Your task to perform on an android device: add a contact Image 0: 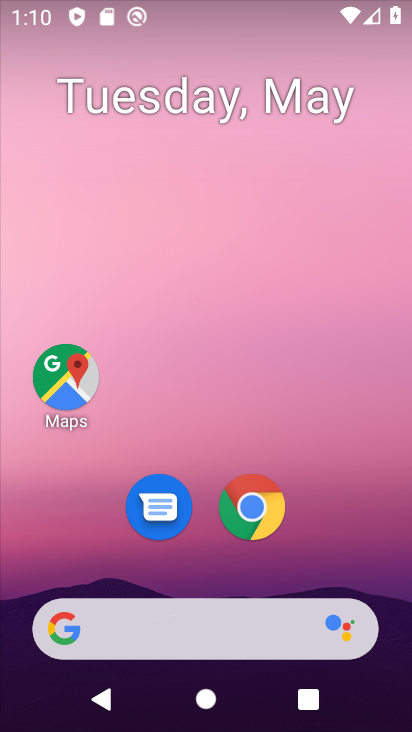
Step 0: drag from (396, 571) to (351, 183)
Your task to perform on an android device: add a contact Image 1: 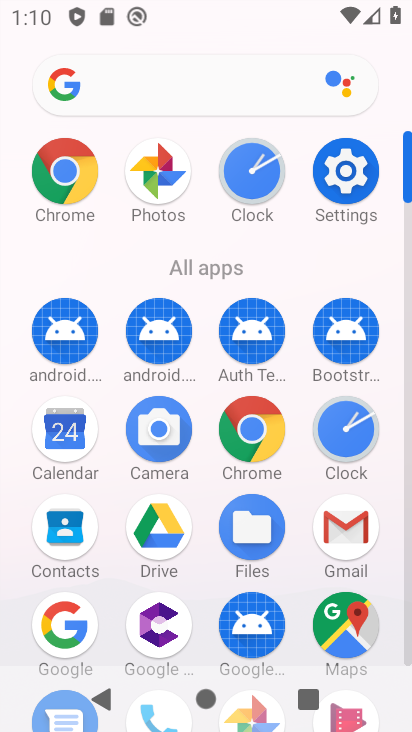
Step 1: click (60, 522)
Your task to perform on an android device: add a contact Image 2: 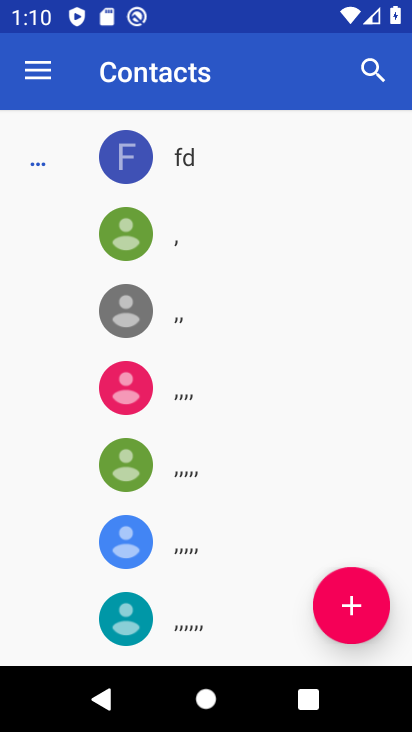
Step 2: click (357, 617)
Your task to perform on an android device: add a contact Image 3: 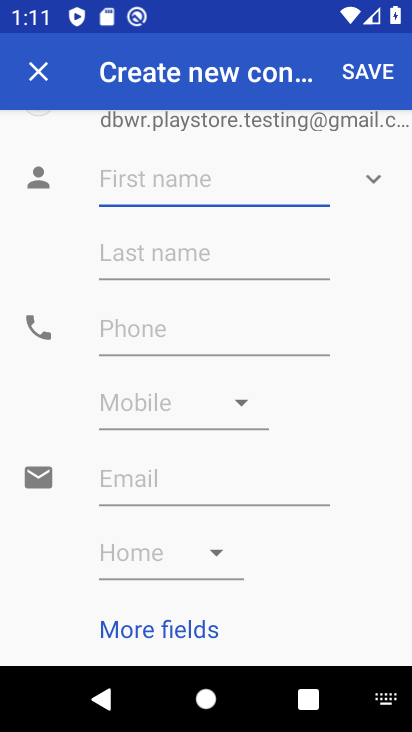
Step 3: type "hjvhjv"
Your task to perform on an android device: add a contact Image 4: 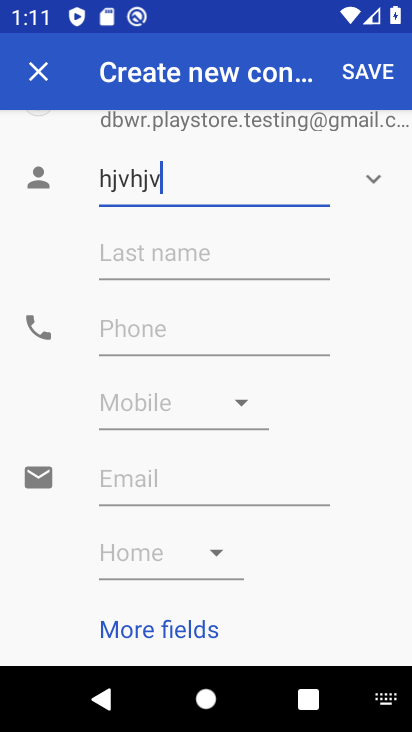
Step 4: click (275, 319)
Your task to perform on an android device: add a contact Image 5: 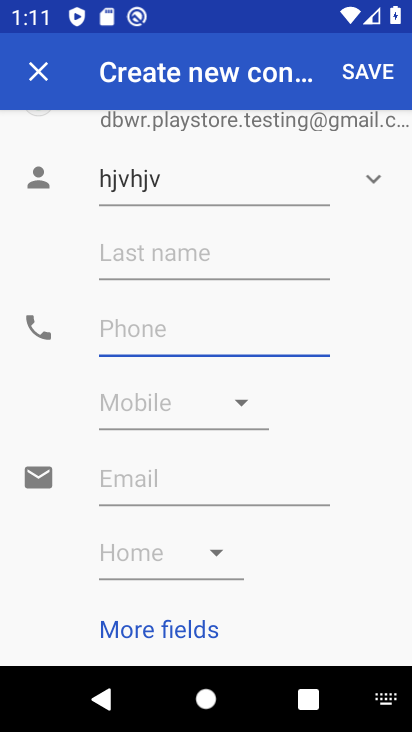
Step 5: type "876787676"
Your task to perform on an android device: add a contact Image 6: 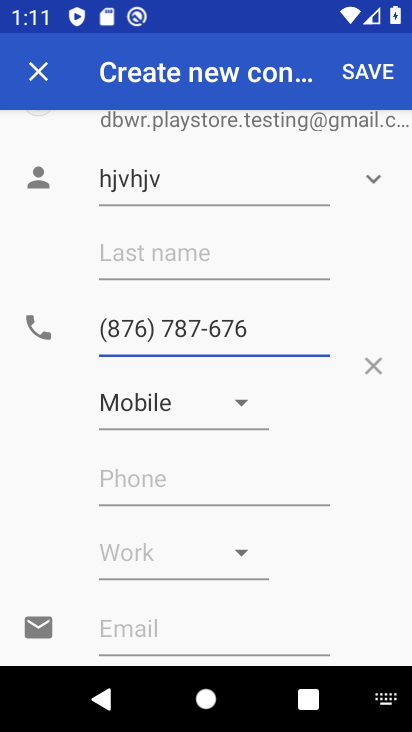
Step 6: click (358, 74)
Your task to perform on an android device: add a contact Image 7: 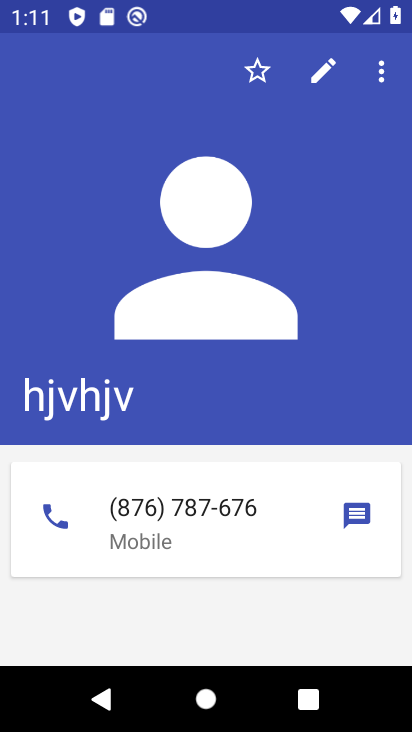
Step 7: task complete